Your task to perform on an android device: Turn on the flashlight Image 0: 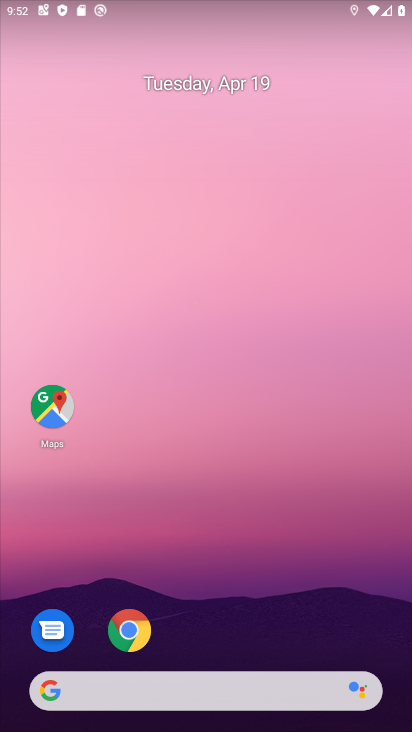
Step 0: drag from (216, 433) to (185, 107)
Your task to perform on an android device: Turn on the flashlight Image 1: 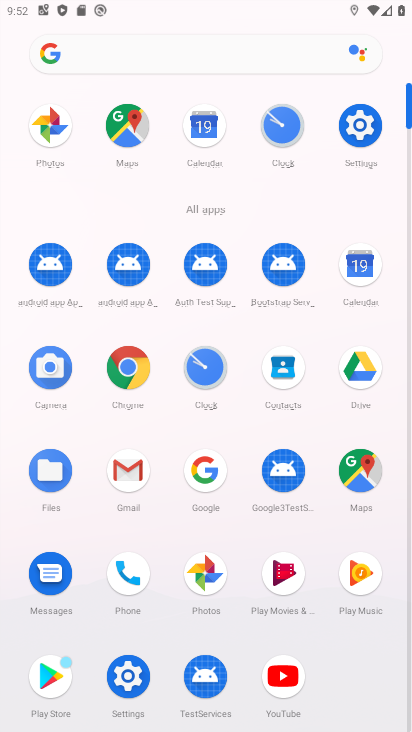
Step 1: click (370, 132)
Your task to perform on an android device: Turn on the flashlight Image 2: 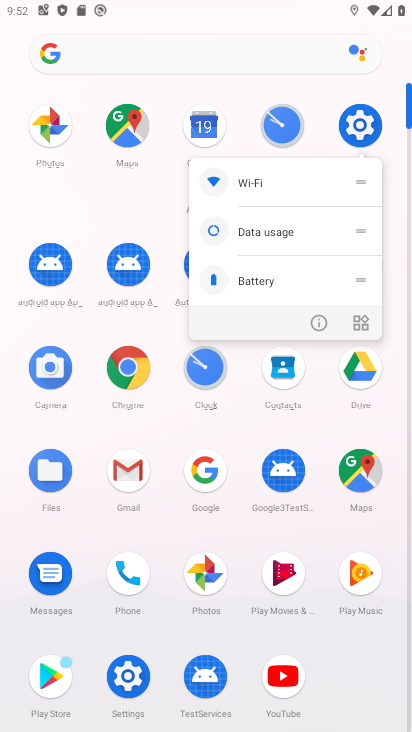
Step 2: click (357, 121)
Your task to perform on an android device: Turn on the flashlight Image 3: 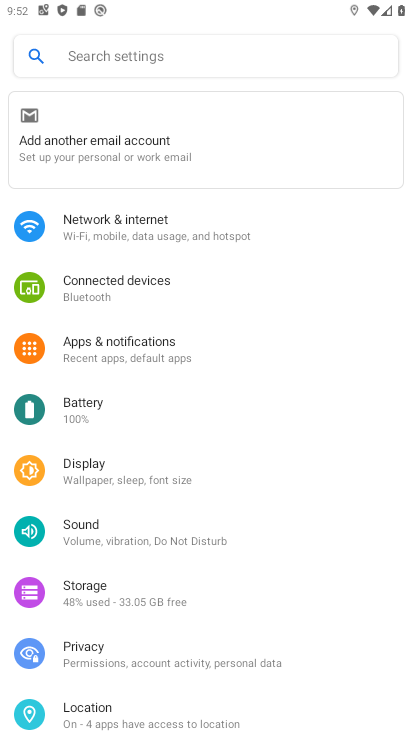
Step 3: click (136, 56)
Your task to perform on an android device: Turn on the flashlight Image 4: 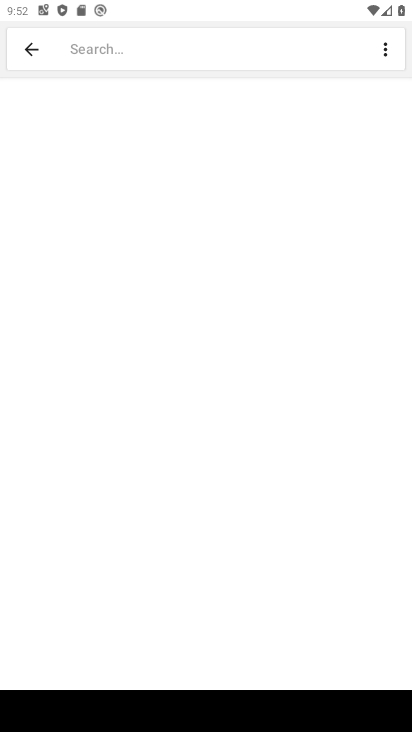
Step 4: type "flashlight"
Your task to perform on an android device: Turn on the flashlight Image 5: 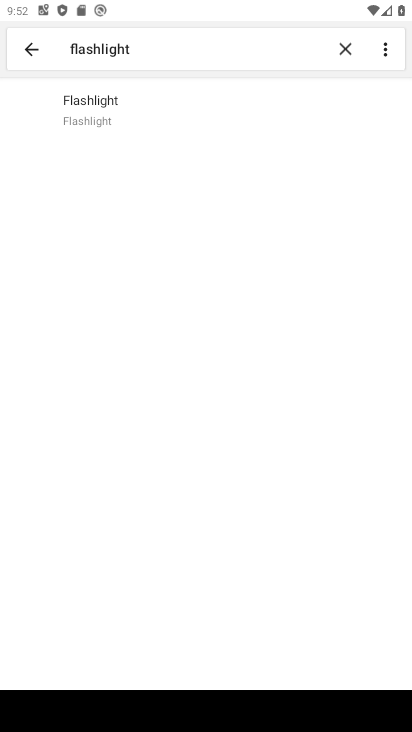
Step 5: click (129, 116)
Your task to perform on an android device: Turn on the flashlight Image 6: 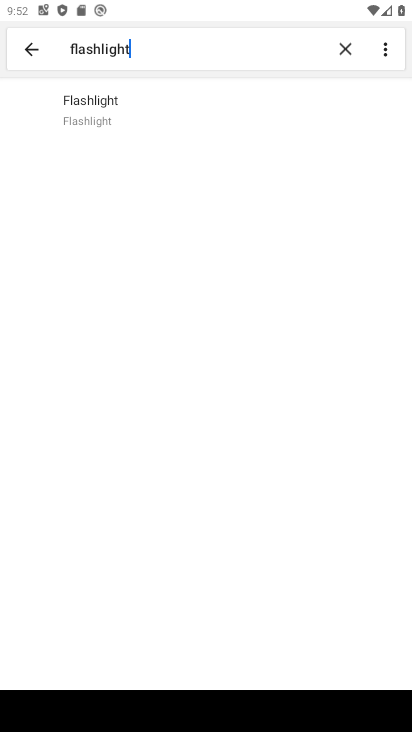
Step 6: click (129, 116)
Your task to perform on an android device: Turn on the flashlight Image 7: 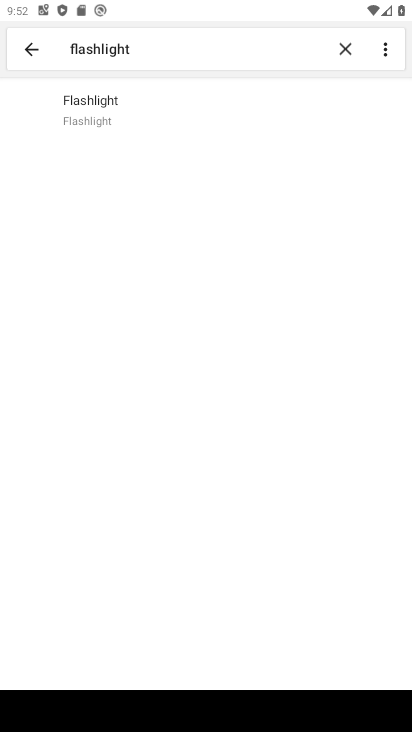
Step 7: task complete